Your task to perform on an android device: change keyboard looks Image 0: 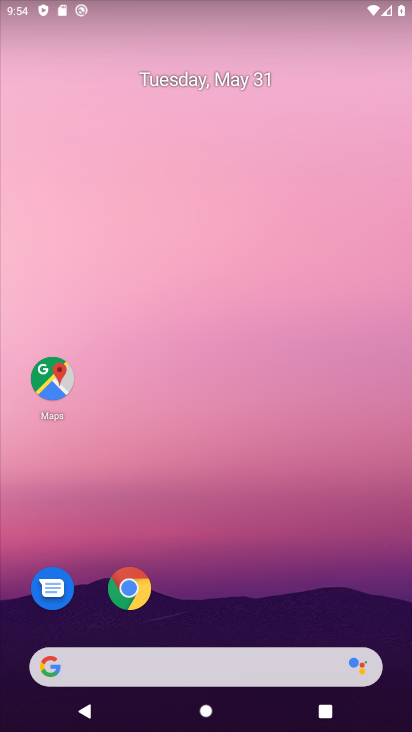
Step 0: drag from (290, 572) to (306, 77)
Your task to perform on an android device: change keyboard looks Image 1: 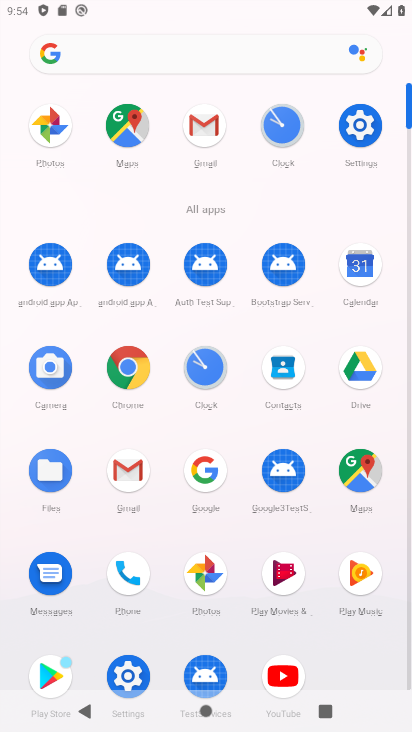
Step 1: click (359, 125)
Your task to perform on an android device: change keyboard looks Image 2: 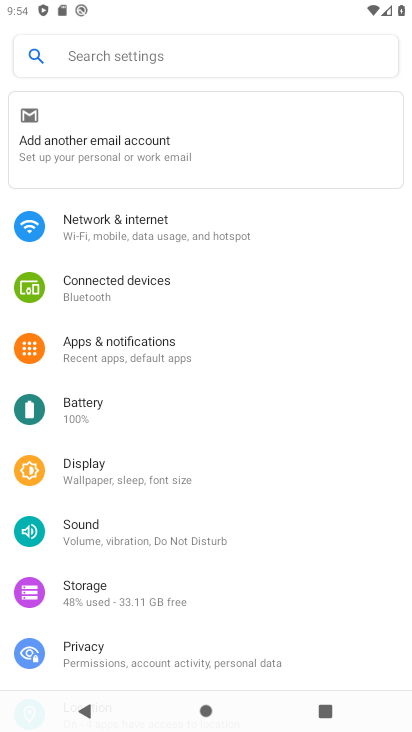
Step 2: drag from (153, 564) to (197, 462)
Your task to perform on an android device: change keyboard looks Image 3: 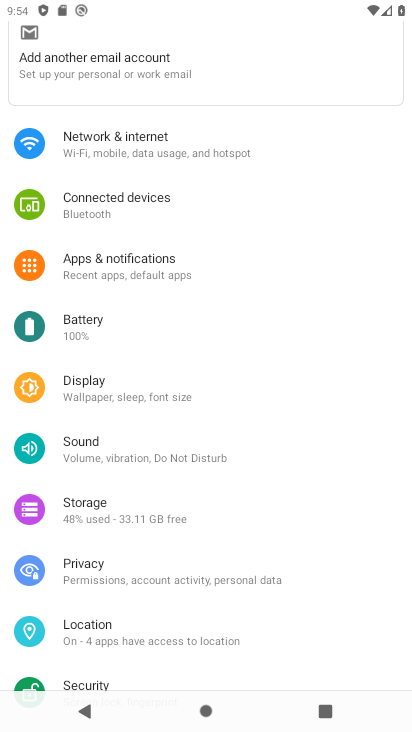
Step 3: drag from (133, 594) to (185, 473)
Your task to perform on an android device: change keyboard looks Image 4: 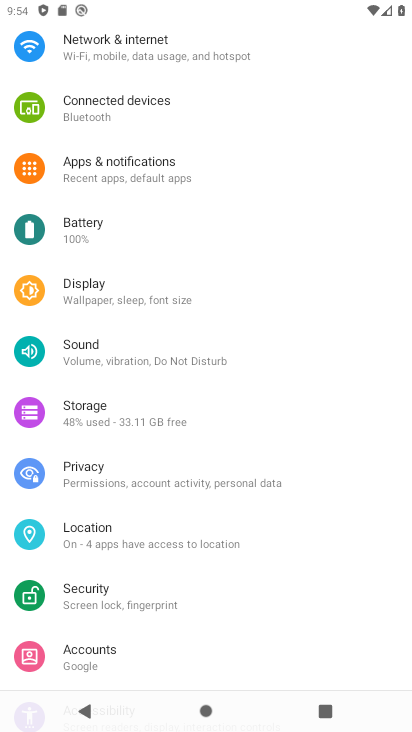
Step 4: drag from (139, 571) to (223, 471)
Your task to perform on an android device: change keyboard looks Image 5: 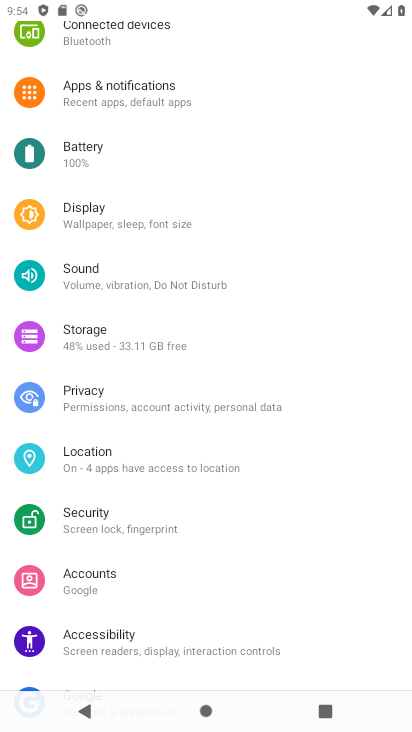
Step 5: drag from (153, 588) to (212, 483)
Your task to perform on an android device: change keyboard looks Image 6: 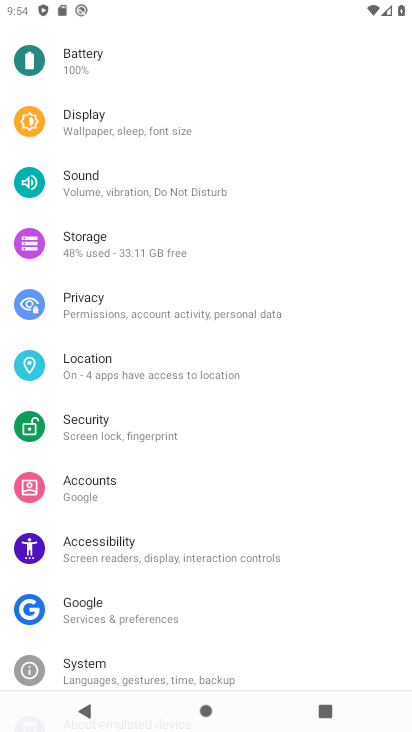
Step 6: drag from (128, 602) to (218, 482)
Your task to perform on an android device: change keyboard looks Image 7: 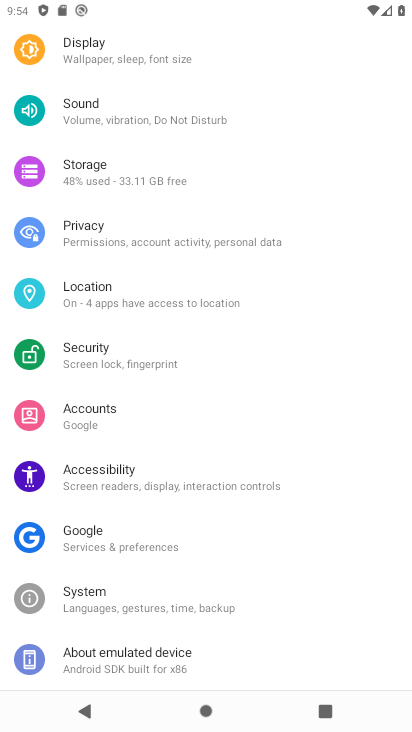
Step 7: click (173, 608)
Your task to perform on an android device: change keyboard looks Image 8: 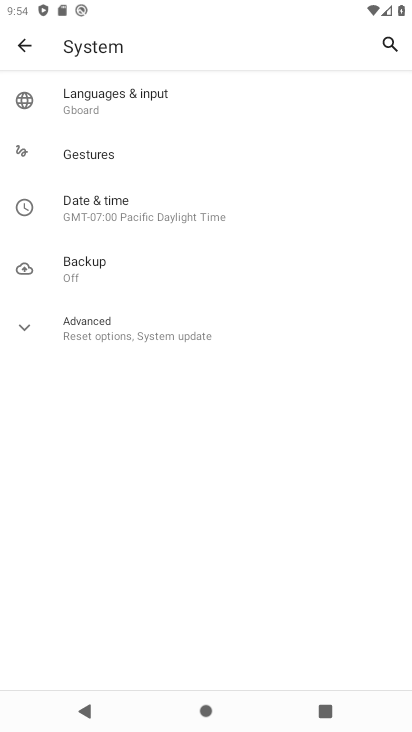
Step 8: click (112, 105)
Your task to perform on an android device: change keyboard looks Image 9: 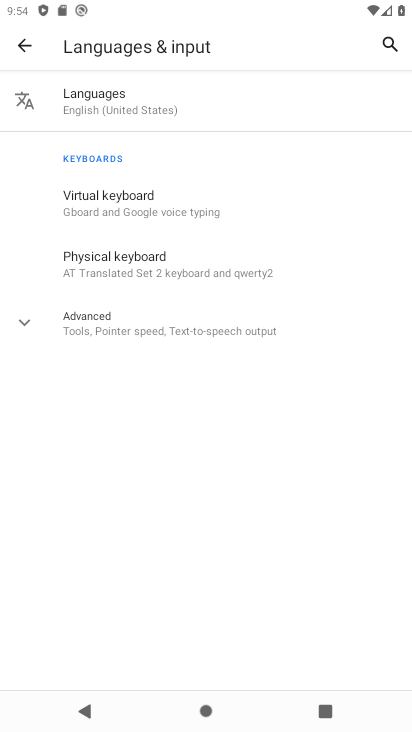
Step 9: click (144, 206)
Your task to perform on an android device: change keyboard looks Image 10: 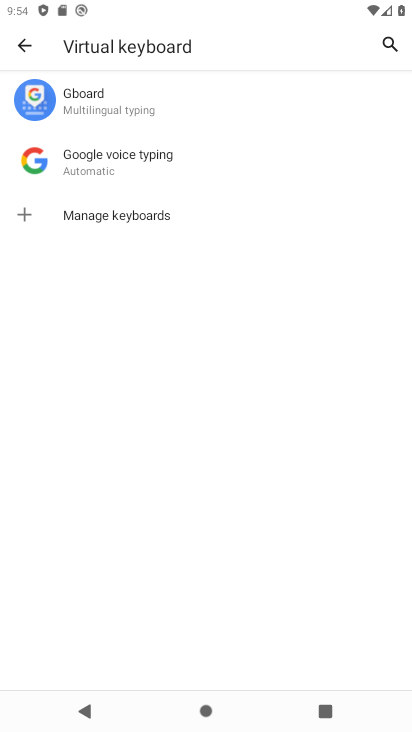
Step 10: click (139, 112)
Your task to perform on an android device: change keyboard looks Image 11: 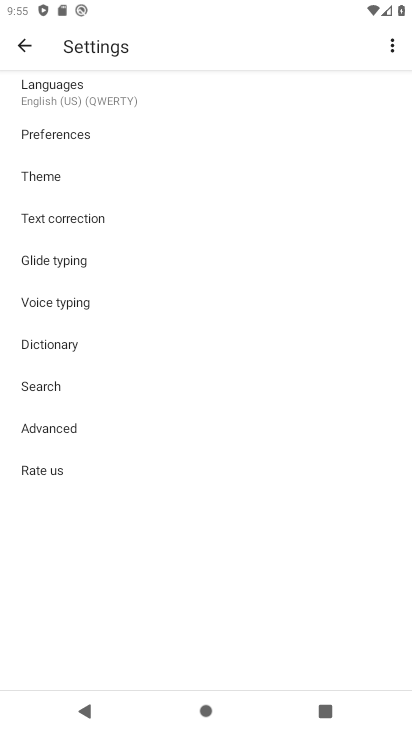
Step 11: click (52, 172)
Your task to perform on an android device: change keyboard looks Image 12: 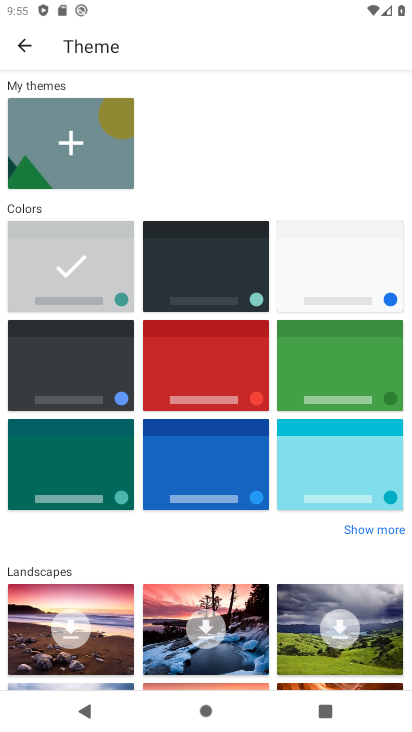
Step 12: click (193, 273)
Your task to perform on an android device: change keyboard looks Image 13: 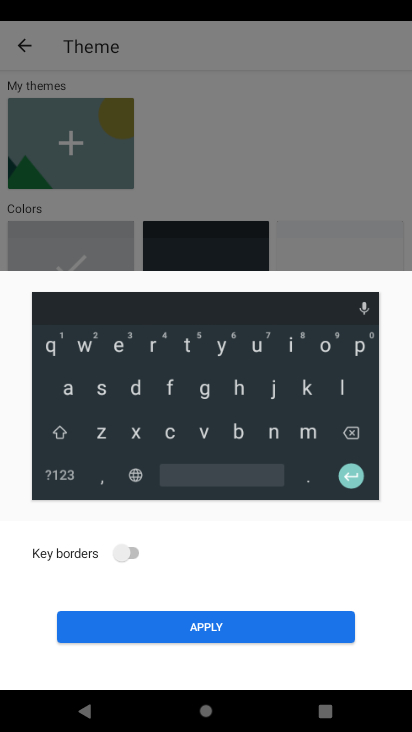
Step 13: click (127, 553)
Your task to perform on an android device: change keyboard looks Image 14: 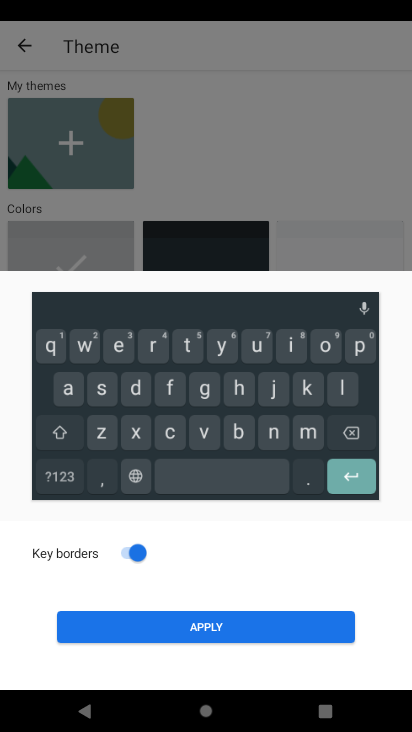
Step 14: click (213, 633)
Your task to perform on an android device: change keyboard looks Image 15: 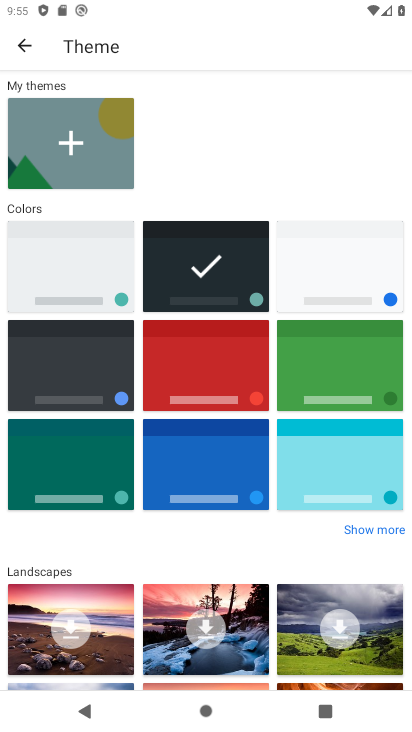
Step 15: task complete